Your task to perform on an android device: Search for seafood restaurants on Google Maps Image 0: 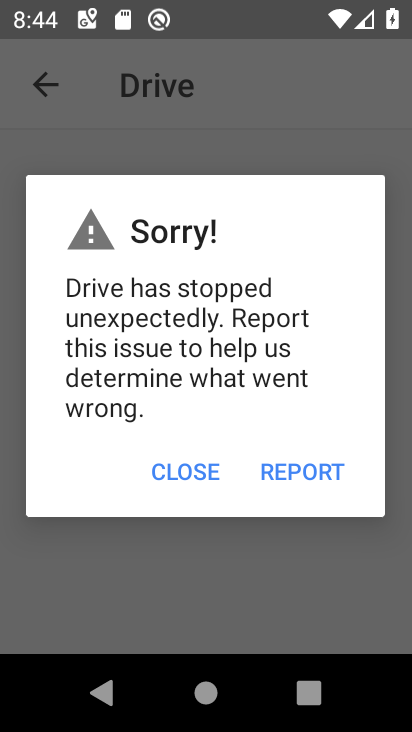
Step 0: press home button
Your task to perform on an android device: Search for seafood restaurants on Google Maps Image 1: 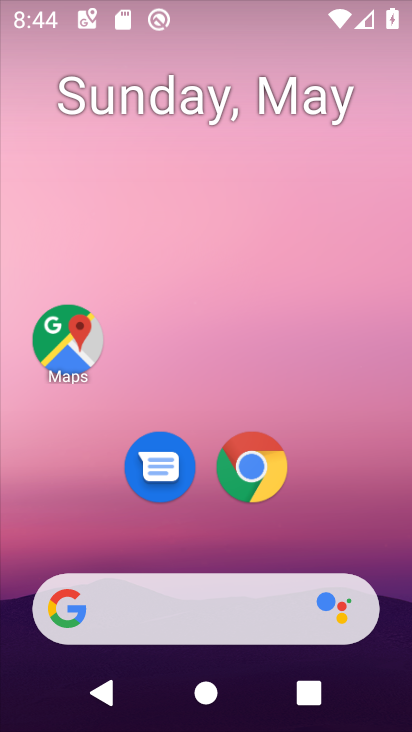
Step 1: drag from (338, 499) to (350, 113)
Your task to perform on an android device: Search for seafood restaurants on Google Maps Image 2: 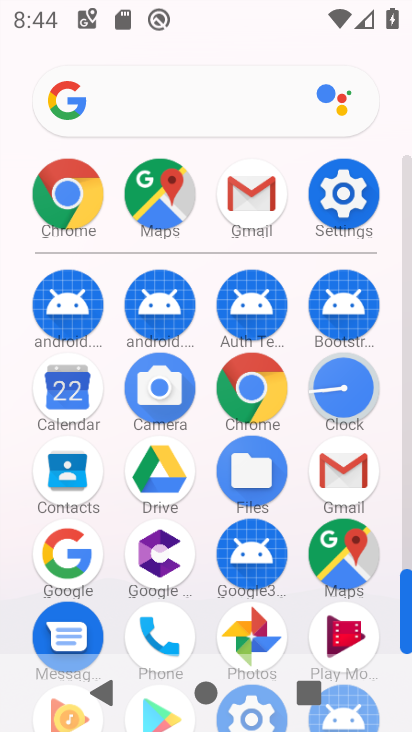
Step 2: click (333, 546)
Your task to perform on an android device: Search for seafood restaurants on Google Maps Image 3: 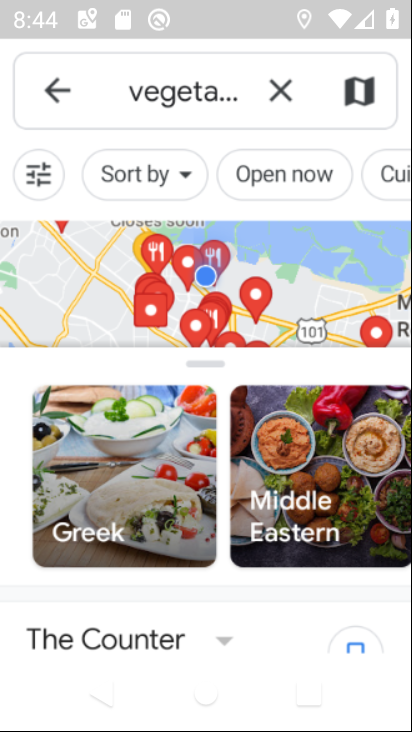
Step 3: click (274, 89)
Your task to perform on an android device: Search for seafood restaurants on Google Maps Image 4: 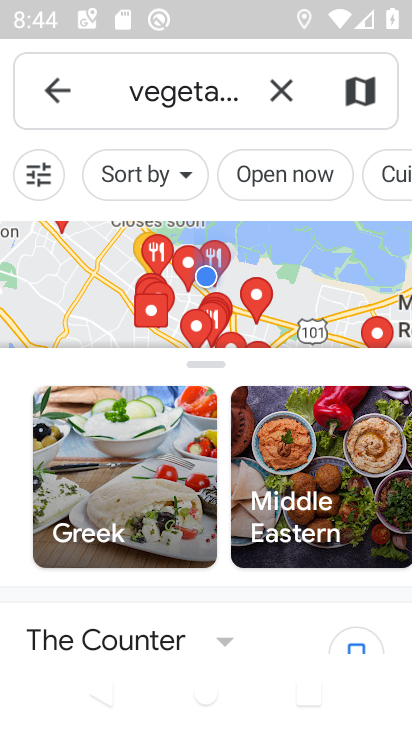
Step 4: click (268, 95)
Your task to perform on an android device: Search for seafood restaurants on Google Maps Image 5: 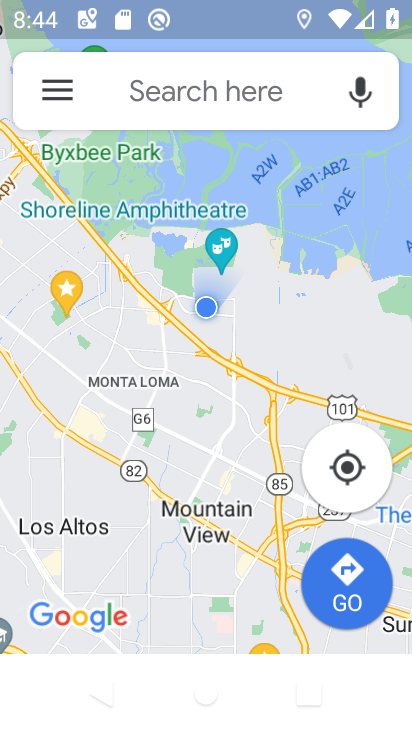
Step 5: click (239, 89)
Your task to perform on an android device: Search for seafood restaurants on Google Maps Image 6: 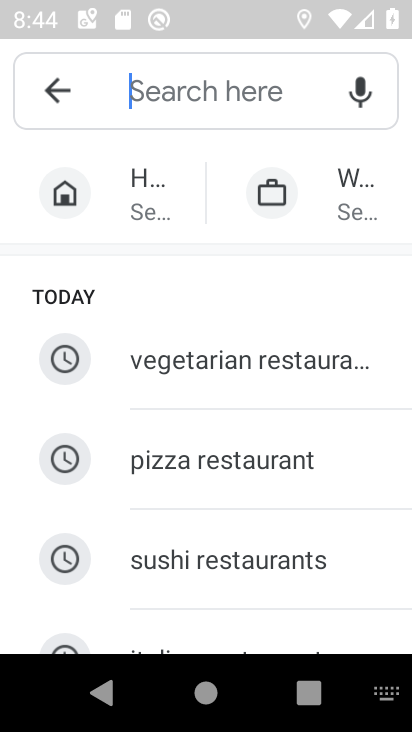
Step 6: drag from (310, 560) to (349, 263)
Your task to perform on an android device: Search for seafood restaurants on Google Maps Image 7: 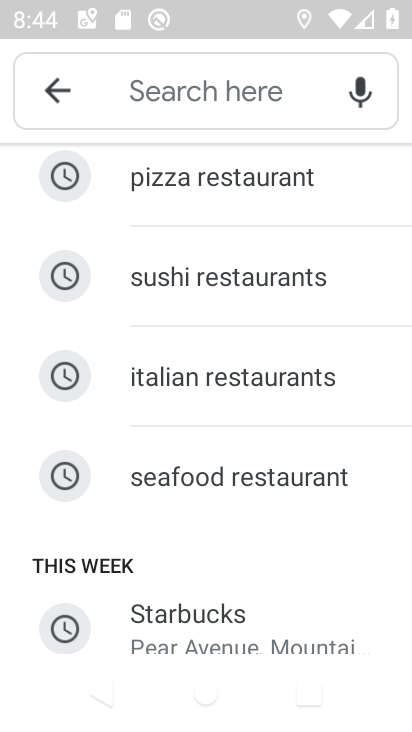
Step 7: click (305, 489)
Your task to perform on an android device: Search for seafood restaurants on Google Maps Image 8: 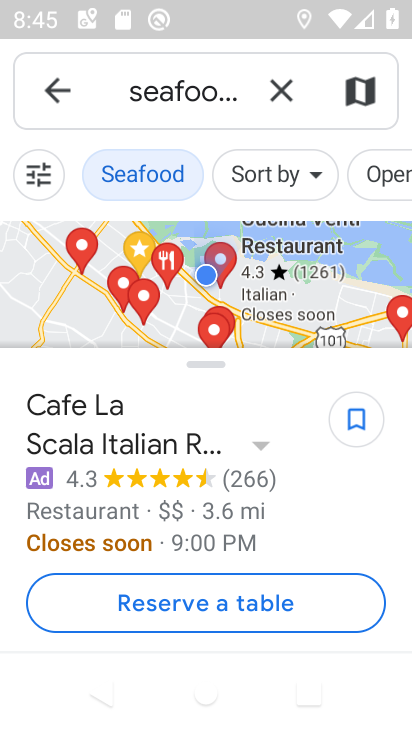
Step 8: task complete